Your task to perform on an android device: Look up the best rated video games on bestbuy.com Image 0: 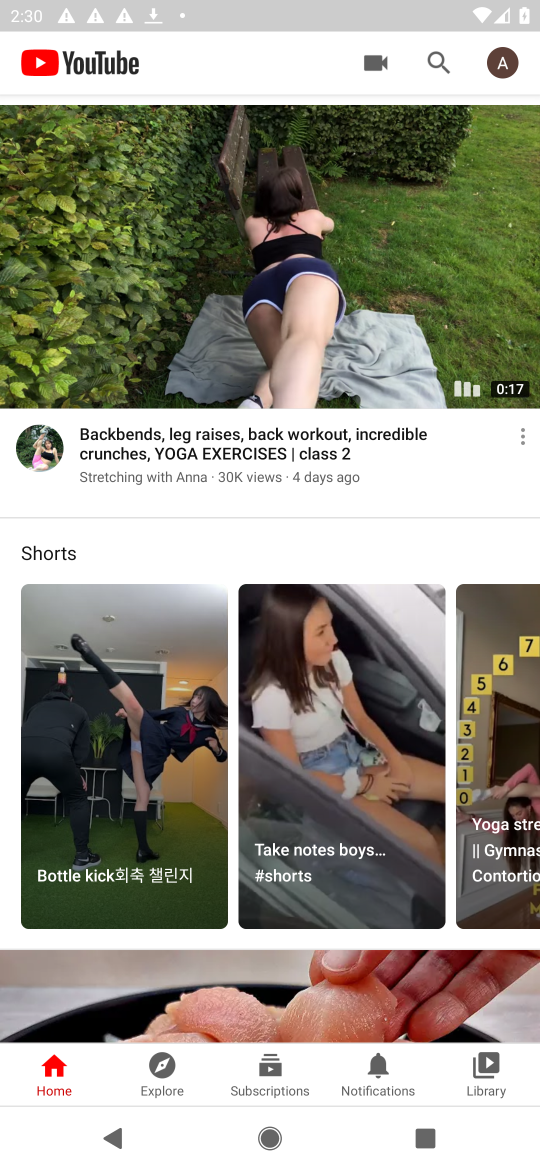
Step 0: press home button
Your task to perform on an android device: Look up the best rated video games on bestbuy.com Image 1: 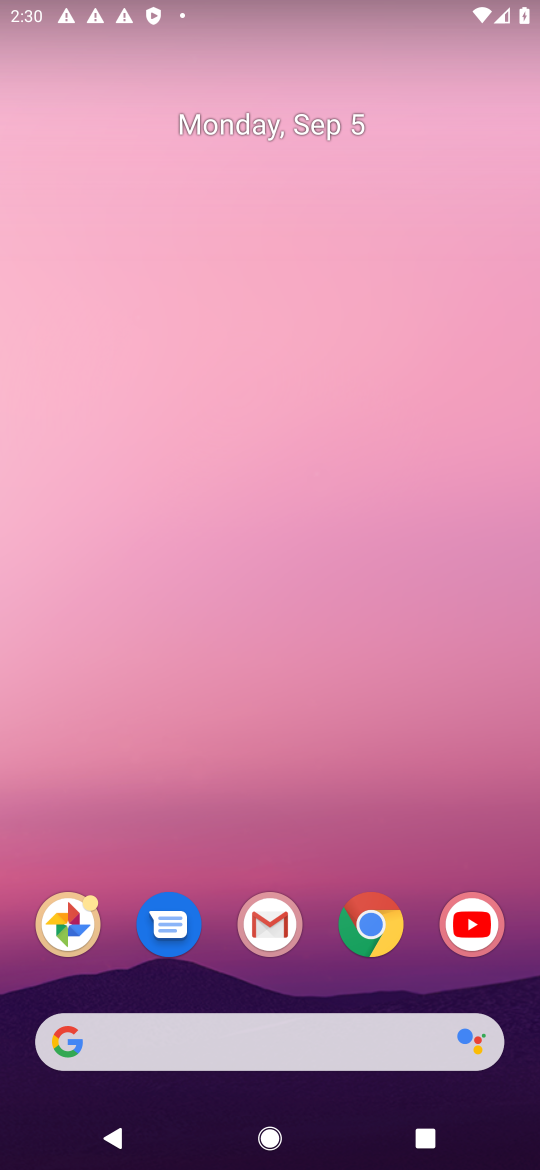
Step 1: click (370, 929)
Your task to perform on an android device: Look up the best rated video games on bestbuy.com Image 2: 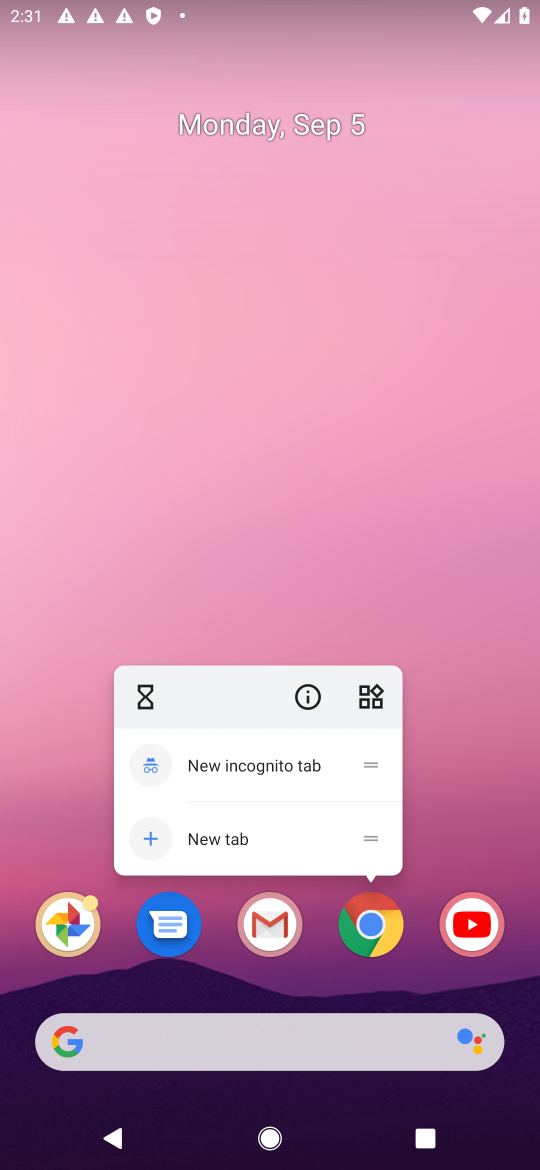
Step 2: click (370, 929)
Your task to perform on an android device: Look up the best rated video games on bestbuy.com Image 3: 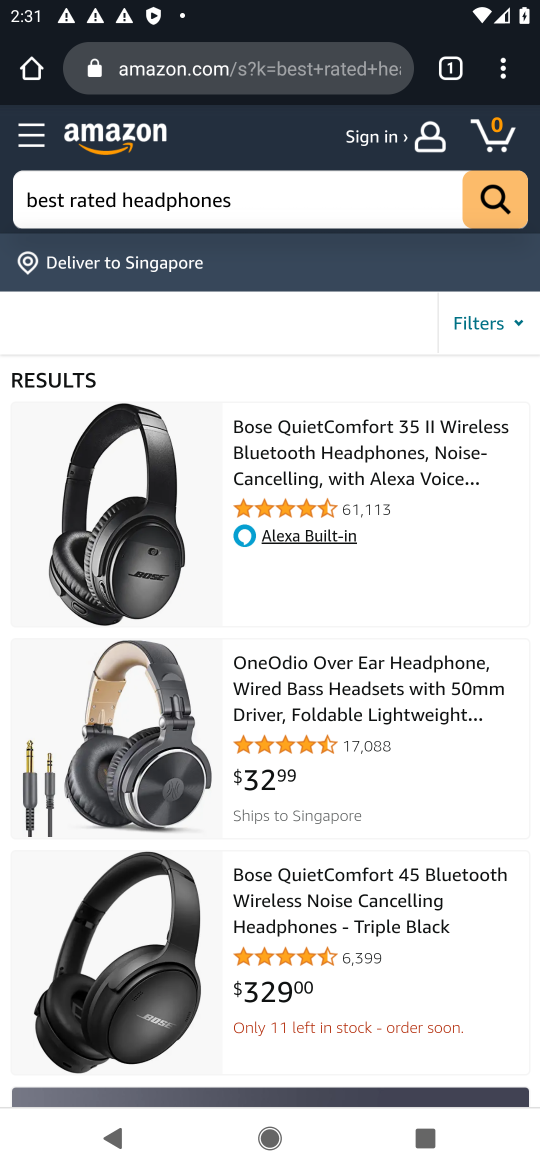
Step 3: click (236, 77)
Your task to perform on an android device: Look up the best rated video games on bestbuy.com Image 4: 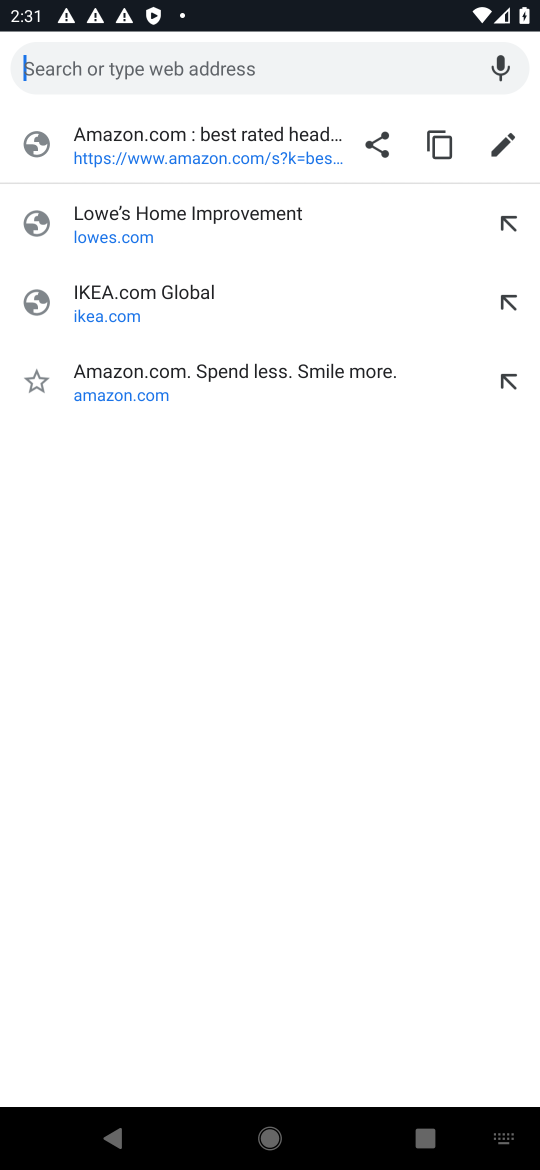
Step 4: type "bestbuy.com"
Your task to perform on an android device: Look up the best rated video games on bestbuy.com Image 5: 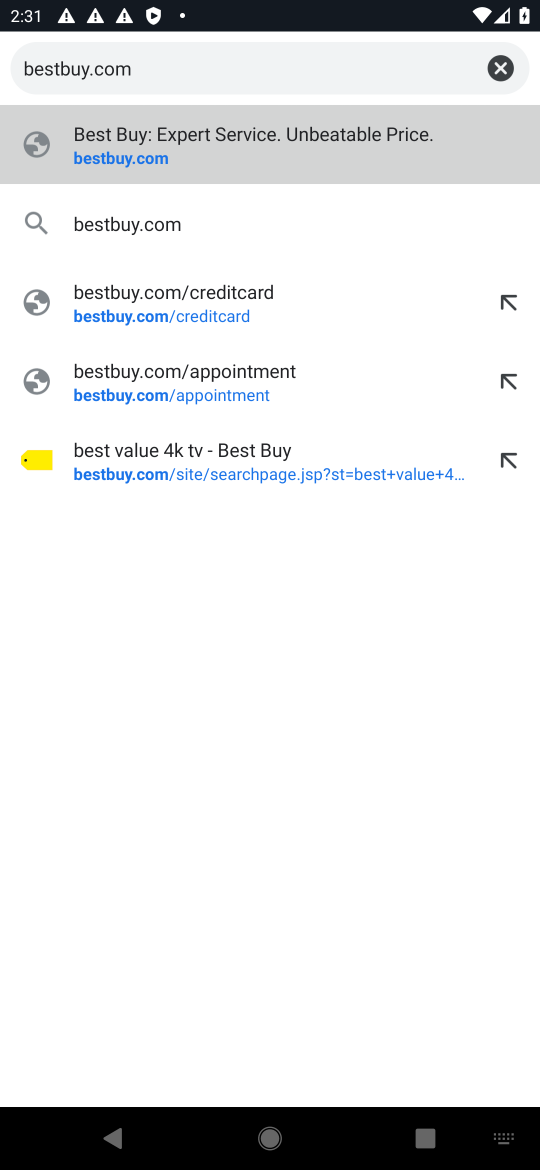
Step 5: click (169, 126)
Your task to perform on an android device: Look up the best rated video games on bestbuy.com Image 6: 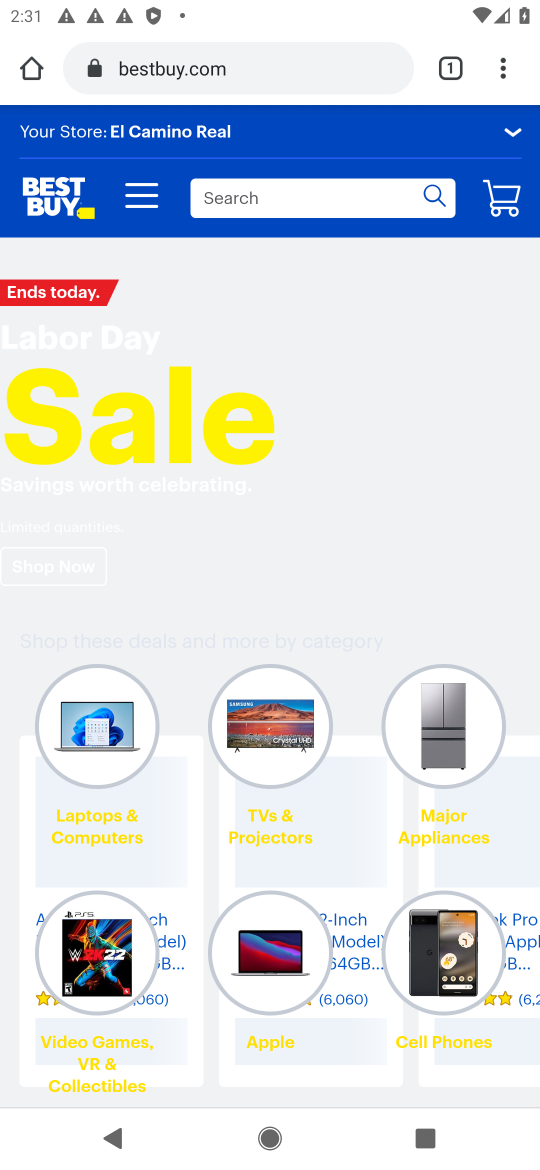
Step 6: click (233, 199)
Your task to perform on an android device: Look up the best rated video games on bestbuy.com Image 7: 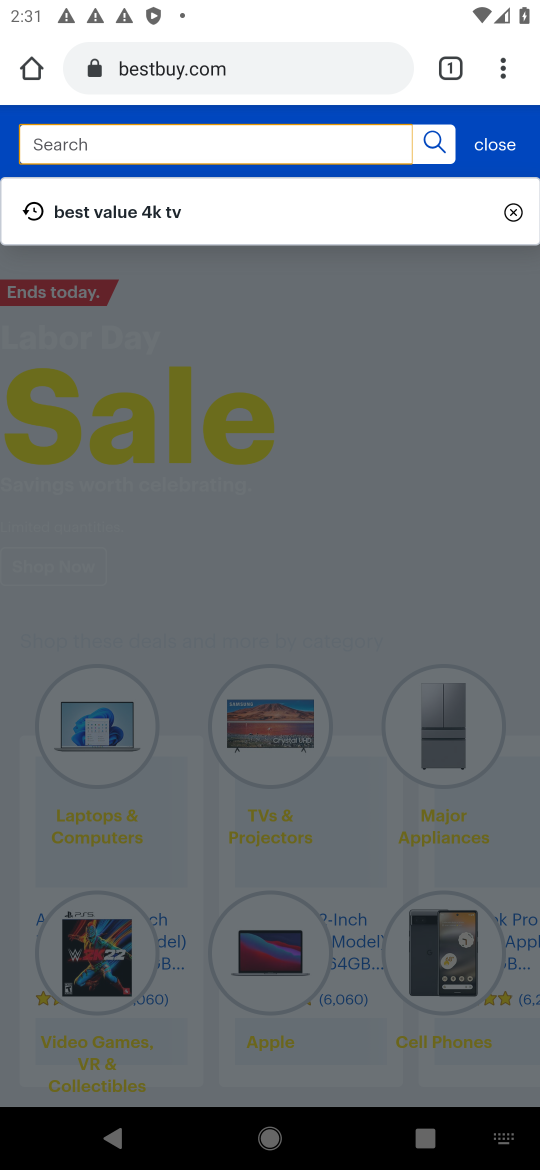
Step 7: type "best rated vedio games"
Your task to perform on an android device: Look up the best rated video games on bestbuy.com Image 8: 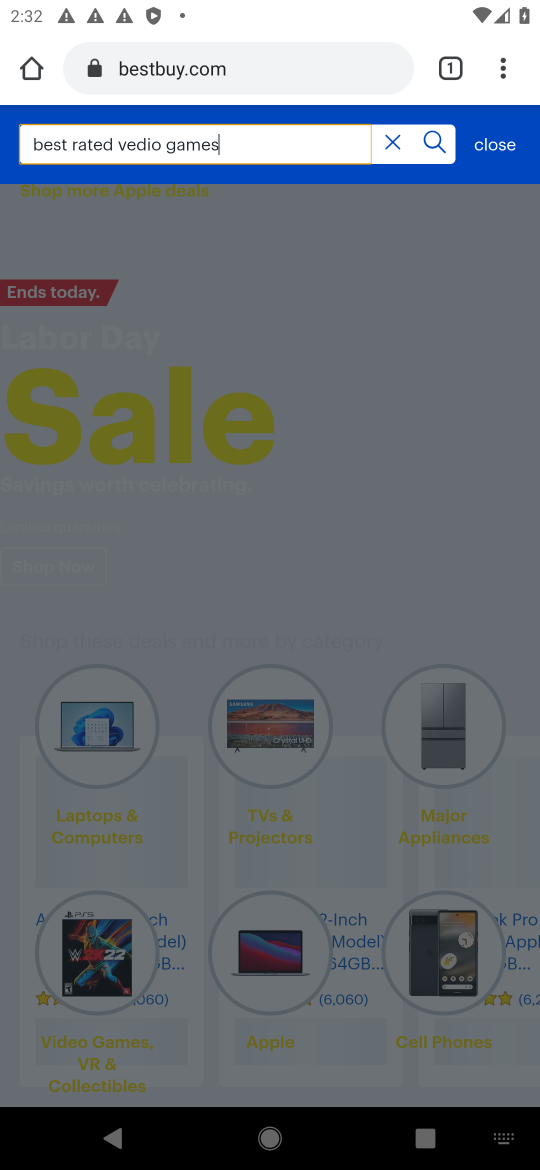
Step 8: click (440, 143)
Your task to perform on an android device: Look up the best rated video games on bestbuy.com Image 9: 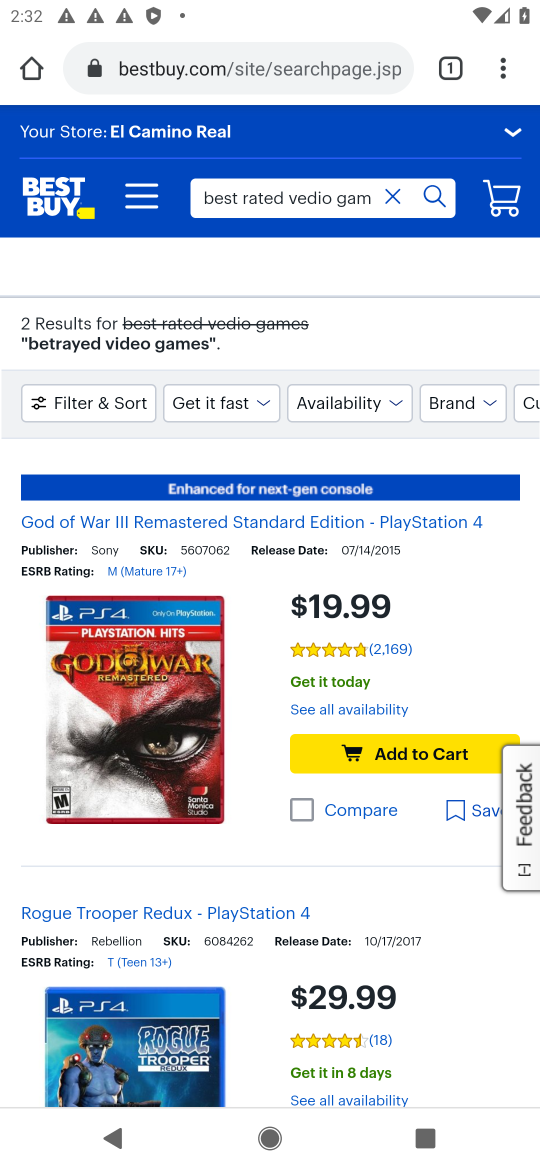
Step 9: task complete